Your task to perform on an android device: Go to location settings Image 0: 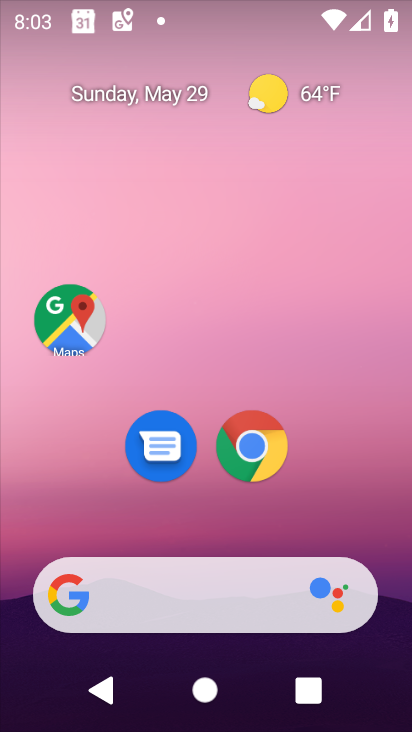
Step 0: drag from (211, 510) to (236, 236)
Your task to perform on an android device: Go to location settings Image 1: 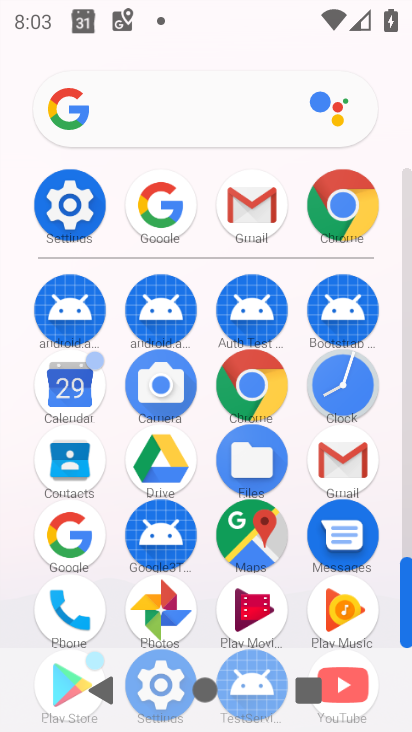
Step 1: click (58, 212)
Your task to perform on an android device: Go to location settings Image 2: 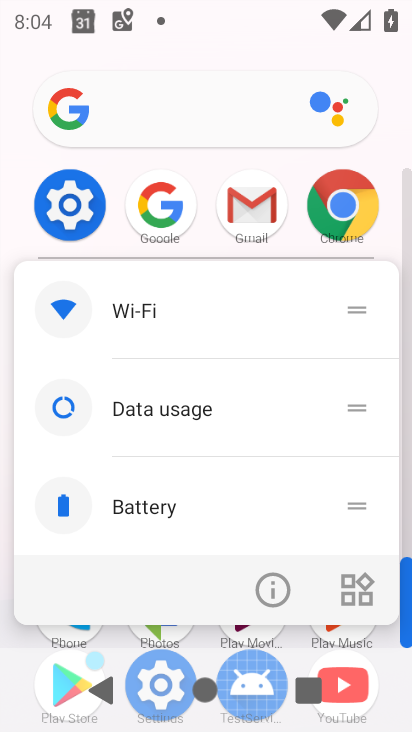
Step 2: click (273, 587)
Your task to perform on an android device: Go to location settings Image 3: 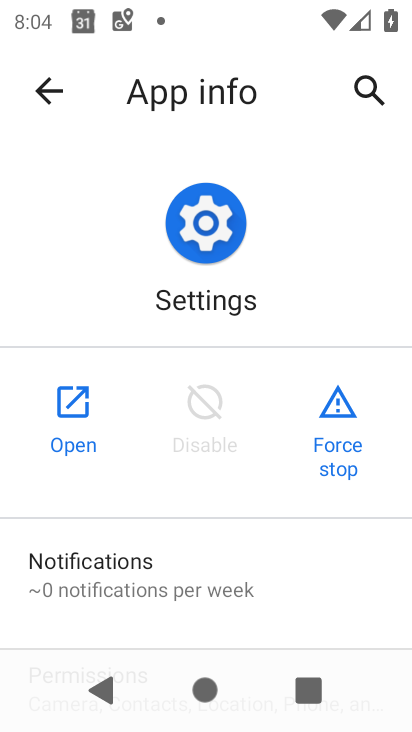
Step 3: click (57, 424)
Your task to perform on an android device: Go to location settings Image 4: 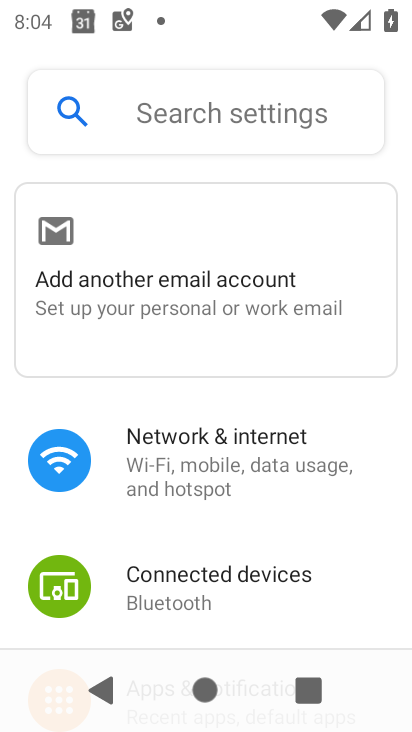
Step 4: drag from (197, 537) to (240, 12)
Your task to perform on an android device: Go to location settings Image 5: 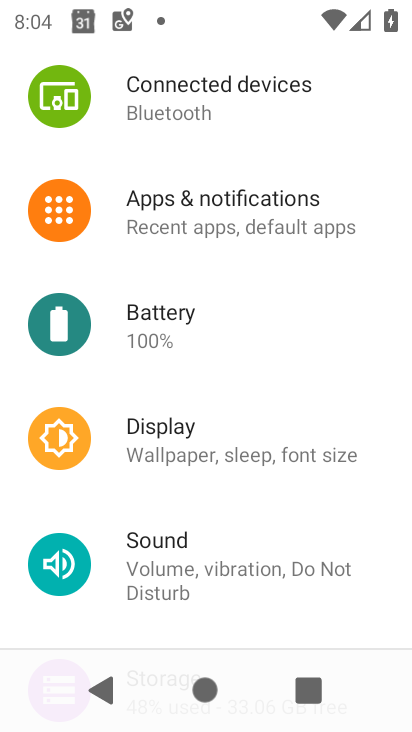
Step 5: drag from (239, 509) to (290, 83)
Your task to perform on an android device: Go to location settings Image 6: 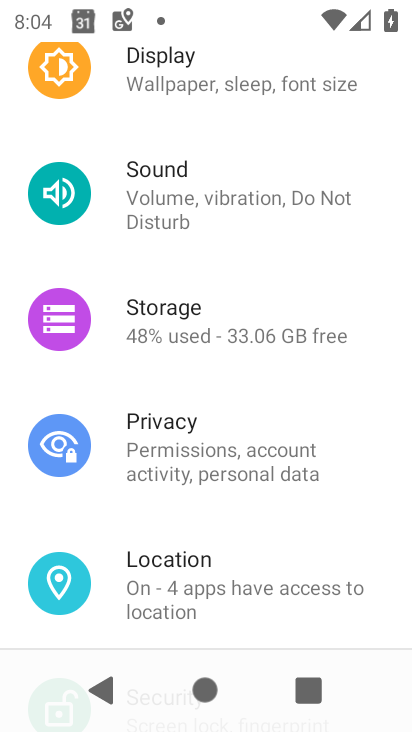
Step 6: click (179, 562)
Your task to perform on an android device: Go to location settings Image 7: 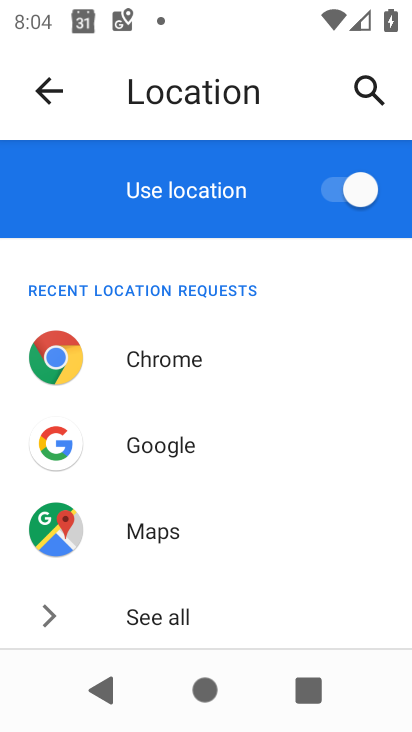
Step 7: task complete